Your task to perform on an android device: Show the shopping cart on newegg.com. Add asus zenbook to the cart on newegg.com Image 0: 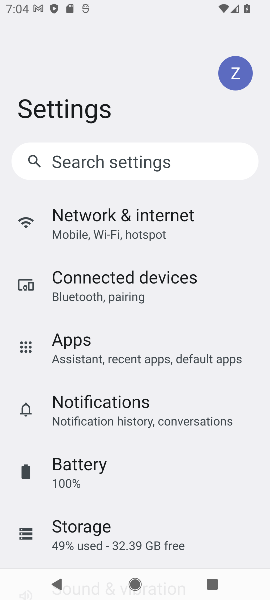
Step 0: press home button
Your task to perform on an android device: Show the shopping cart on newegg.com. Add asus zenbook to the cart on newegg.com Image 1: 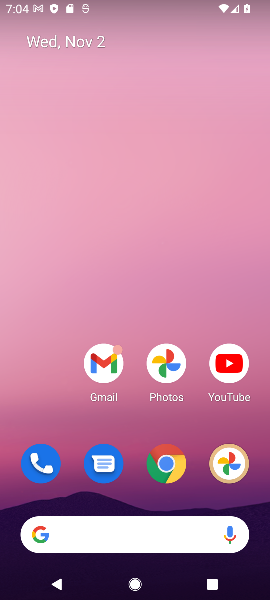
Step 1: click (169, 479)
Your task to perform on an android device: Show the shopping cart on newegg.com. Add asus zenbook to the cart on newegg.com Image 2: 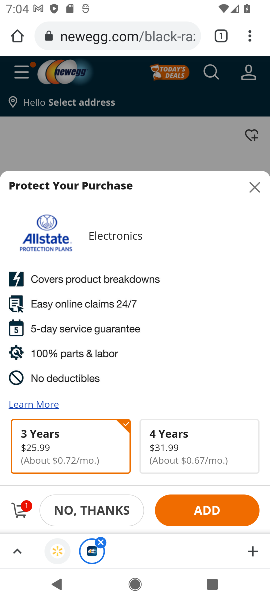
Step 2: click (260, 191)
Your task to perform on an android device: Show the shopping cart on newegg.com. Add asus zenbook to the cart on newegg.com Image 3: 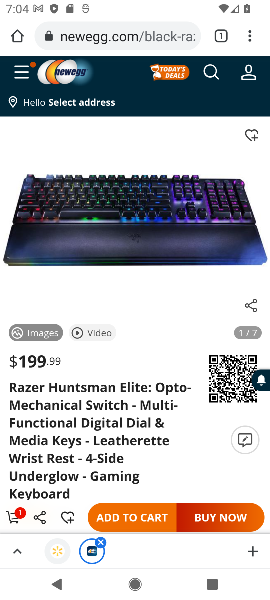
Step 3: click (16, 518)
Your task to perform on an android device: Show the shopping cart on newegg.com. Add asus zenbook to the cart on newegg.com Image 4: 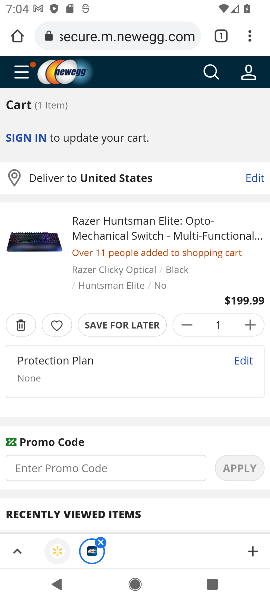
Step 4: click (213, 79)
Your task to perform on an android device: Show the shopping cart on newegg.com. Add asus zenbook to the cart on newegg.com Image 5: 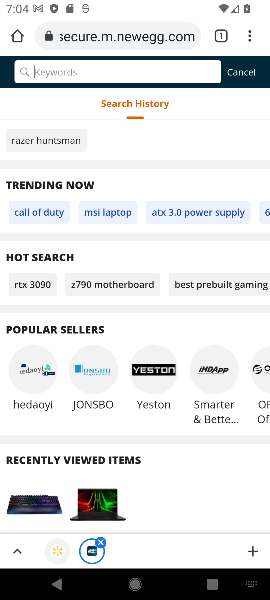
Step 5: type "asus zenbook"
Your task to perform on an android device: Show the shopping cart on newegg.com. Add asus zenbook to the cart on newegg.com Image 6: 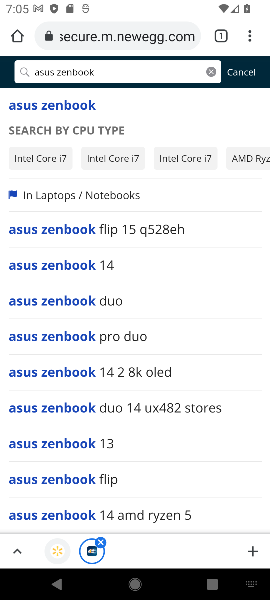
Step 6: click (33, 105)
Your task to perform on an android device: Show the shopping cart on newegg.com. Add asus zenbook to the cart on newegg.com Image 7: 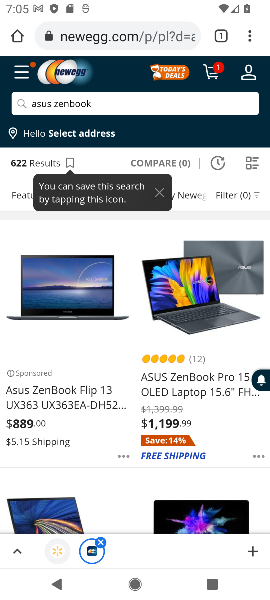
Step 7: click (57, 320)
Your task to perform on an android device: Show the shopping cart on newegg.com. Add asus zenbook to the cart on newegg.com Image 8: 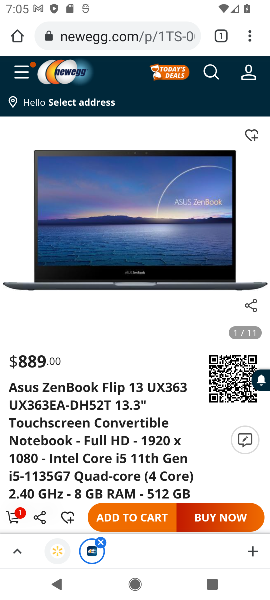
Step 8: click (122, 516)
Your task to perform on an android device: Show the shopping cart on newegg.com. Add asus zenbook to the cart on newegg.com Image 9: 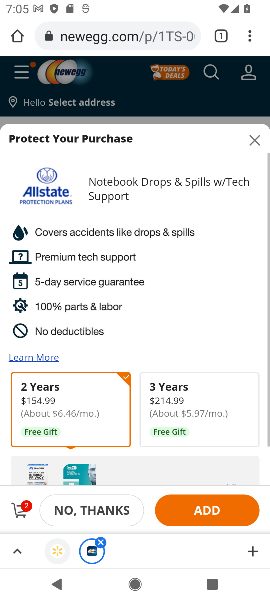
Step 9: task complete